Your task to perform on an android device: open sync settings in chrome Image 0: 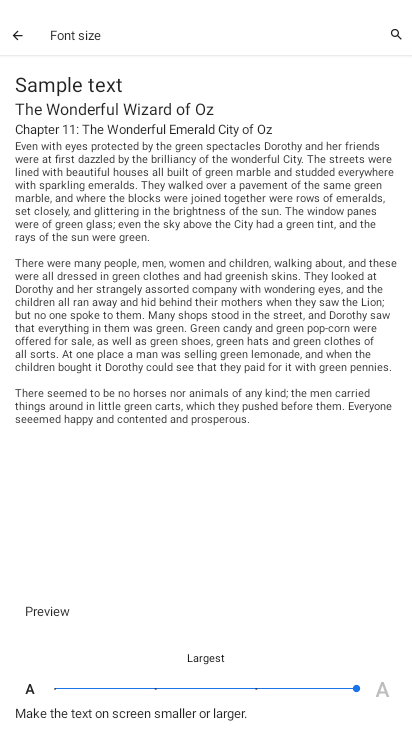
Step 0: press home button
Your task to perform on an android device: open sync settings in chrome Image 1: 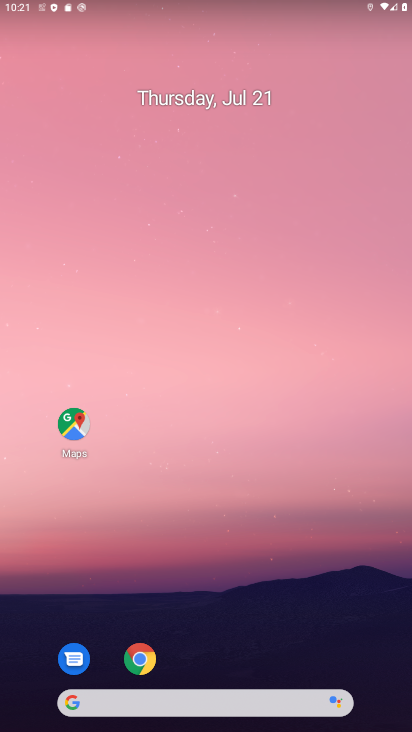
Step 1: drag from (231, 673) to (176, 258)
Your task to perform on an android device: open sync settings in chrome Image 2: 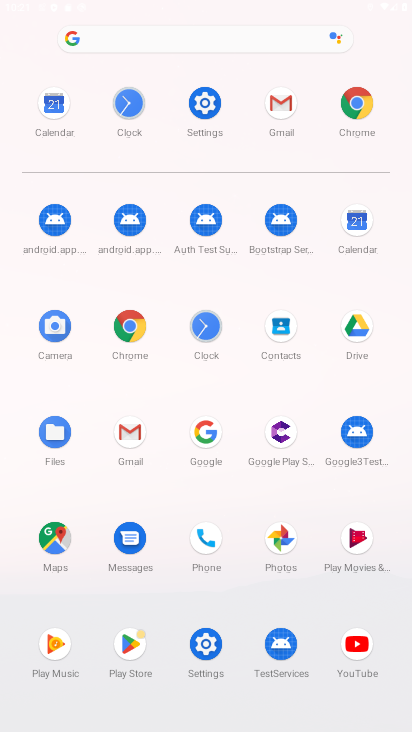
Step 2: click (128, 336)
Your task to perform on an android device: open sync settings in chrome Image 3: 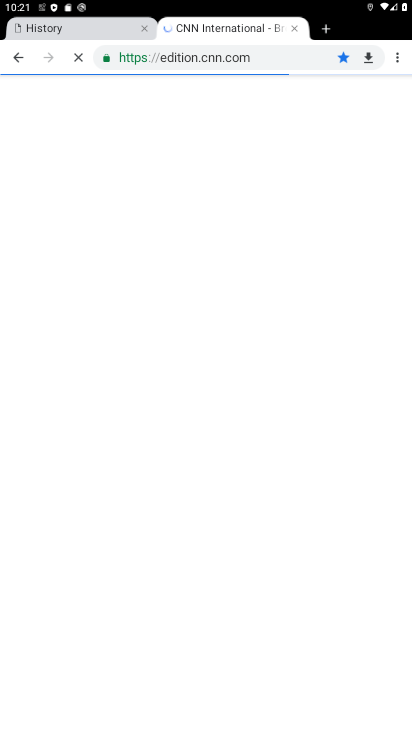
Step 3: click (399, 52)
Your task to perform on an android device: open sync settings in chrome Image 4: 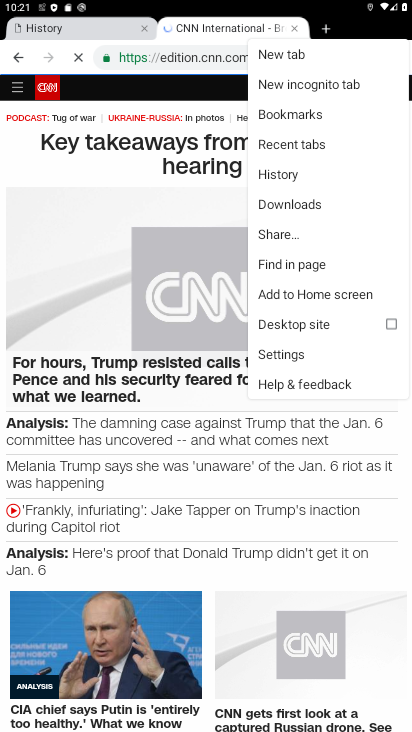
Step 4: click (275, 353)
Your task to perform on an android device: open sync settings in chrome Image 5: 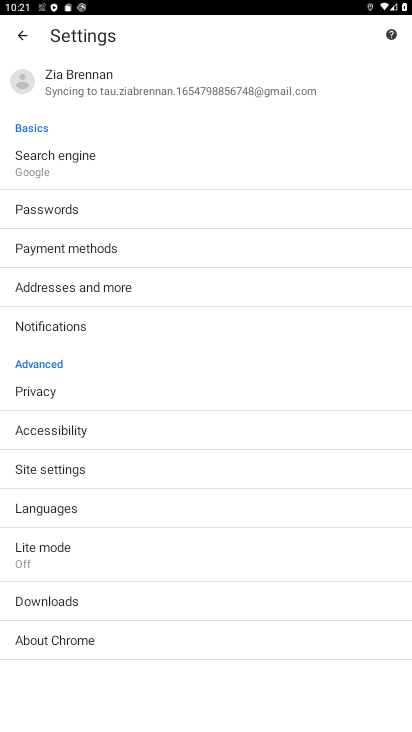
Step 5: click (74, 78)
Your task to perform on an android device: open sync settings in chrome Image 6: 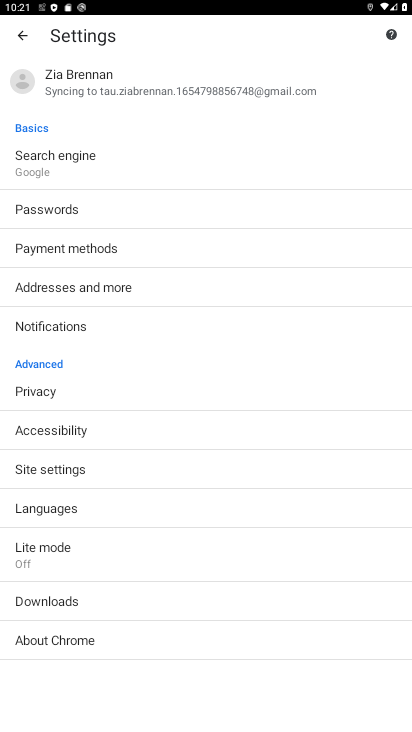
Step 6: click (74, 78)
Your task to perform on an android device: open sync settings in chrome Image 7: 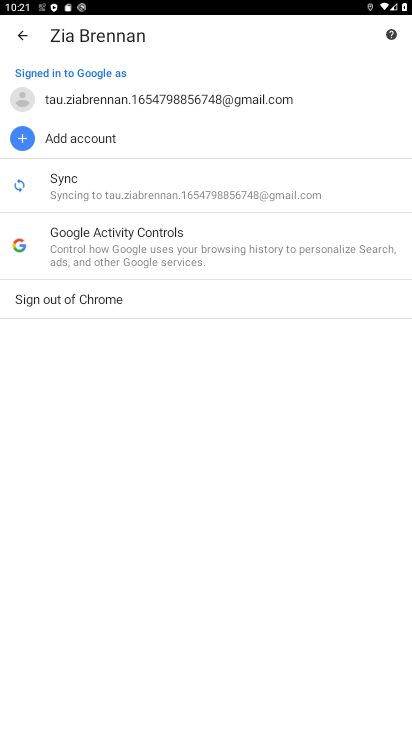
Step 7: click (109, 191)
Your task to perform on an android device: open sync settings in chrome Image 8: 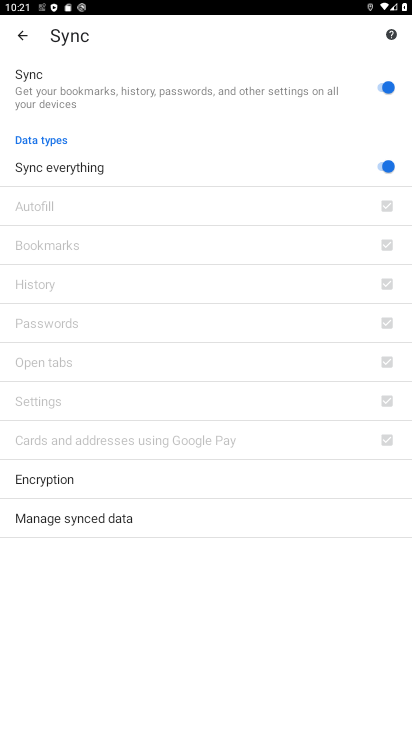
Step 8: task complete